Your task to perform on an android device: turn off wifi Image 0: 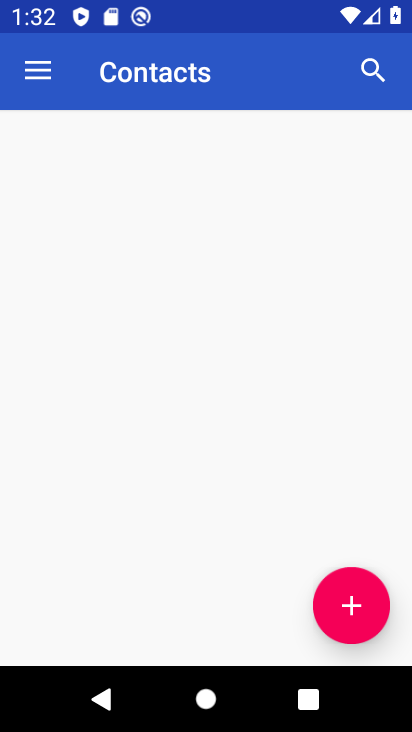
Step 0: press home button
Your task to perform on an android device: turn off wifi Image 1: 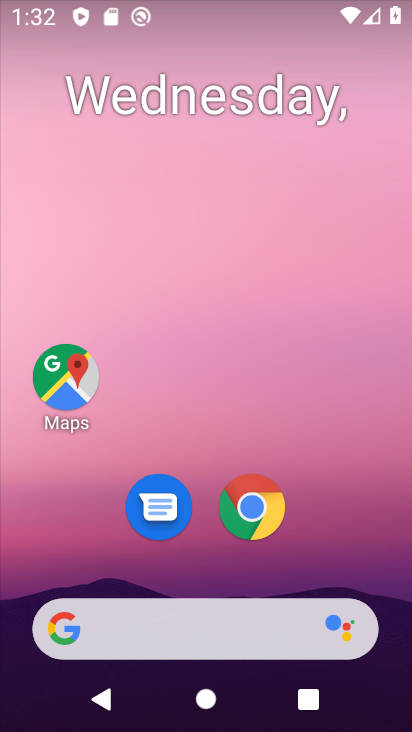
Step 1: drag from (375, 582) to (342, 203)
Your task to perform on an android device: turn off wifi Image 2: 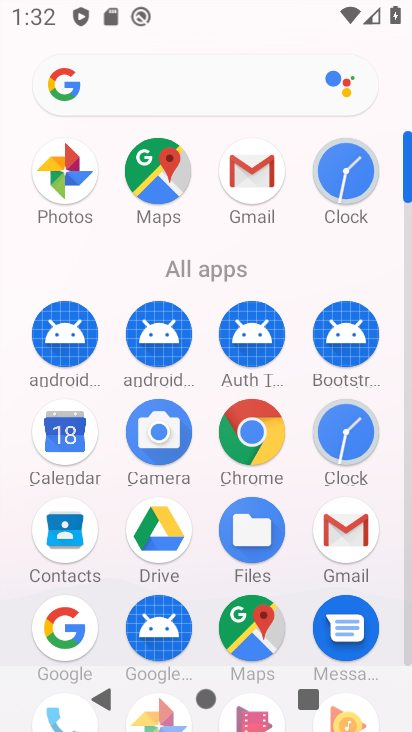
Step 2: click (410, 660)
Your task to perform on an android device: turn off wifi Image 3: 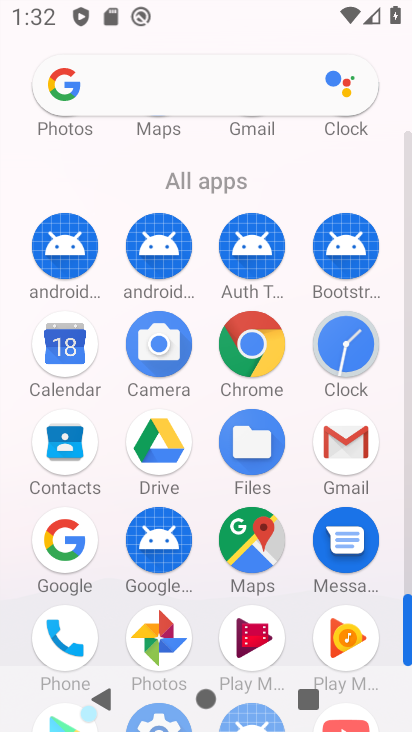
Step 3: drag from (393, 577) to (387, 339)
Your task to perform on an android device: turn off wifi Image 4: 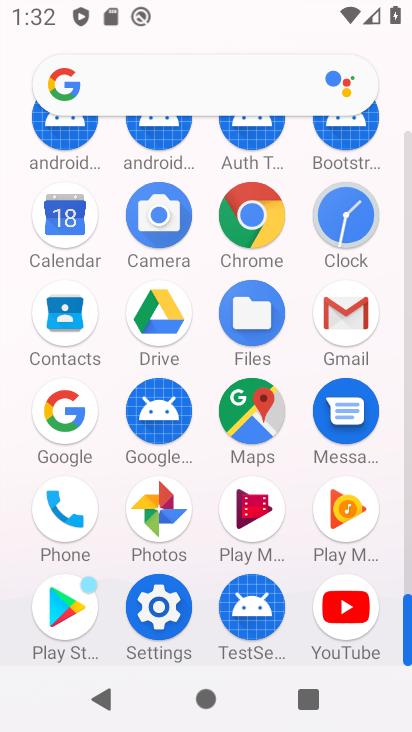
Step 4: click (172, 613)
Your task to perform on an android device: turn off wifi Image 5: 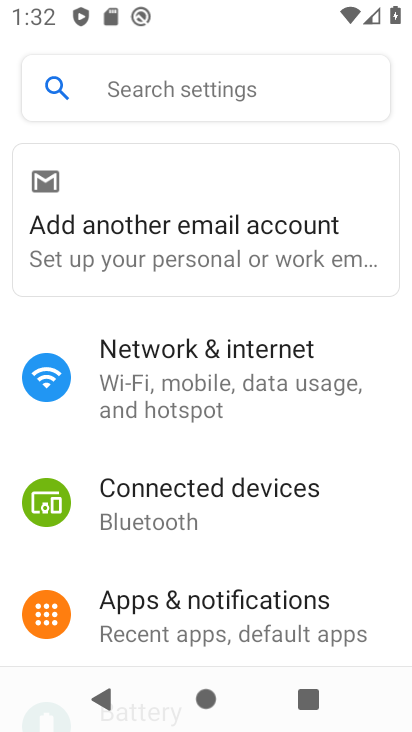
Step 5: click (269, 232)
Your task to perform on an android device: turn off wifi Image 6: 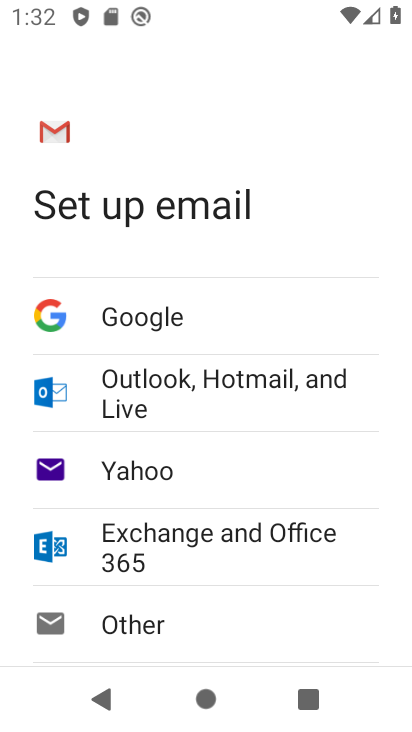
Step 6: press back button
Your task to perform on an android device: turn off wifi Image 7: 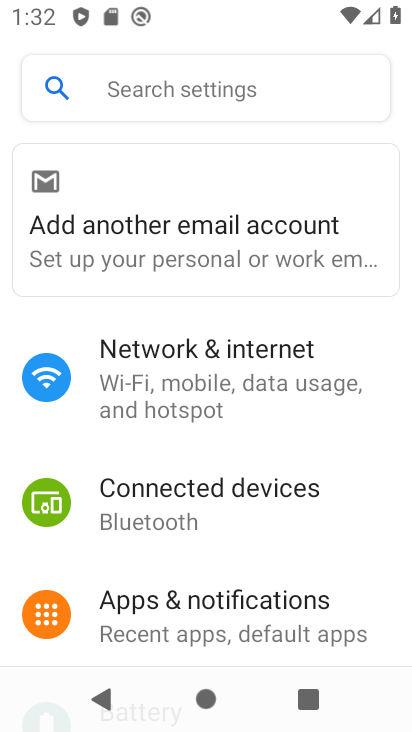
Step 7: click (322, 370)
Your task to perform on an android device: turn off wifi Image 8: 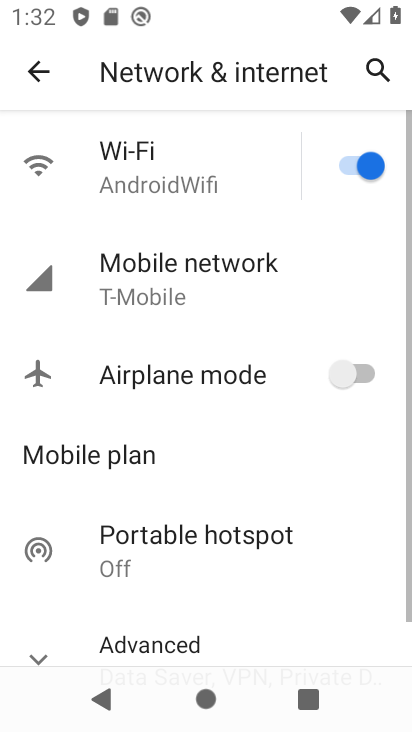
Step 8: click (352, 160)
Your task to perform on an android device: turn off wifi Image 9: 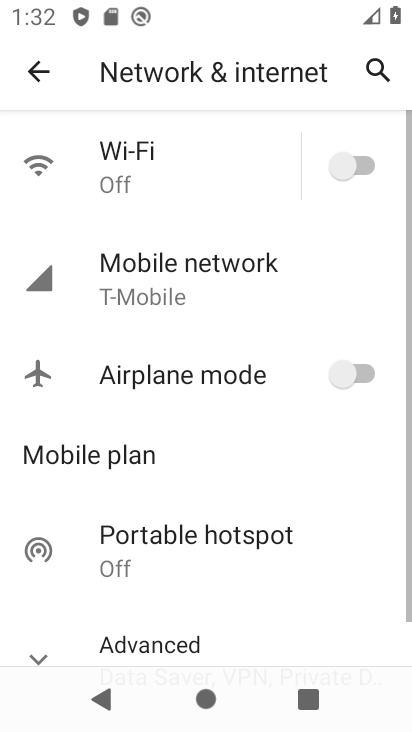
Step 9: task complete